Your task to perform on an android device: Go to Yahoo.com Image 0: 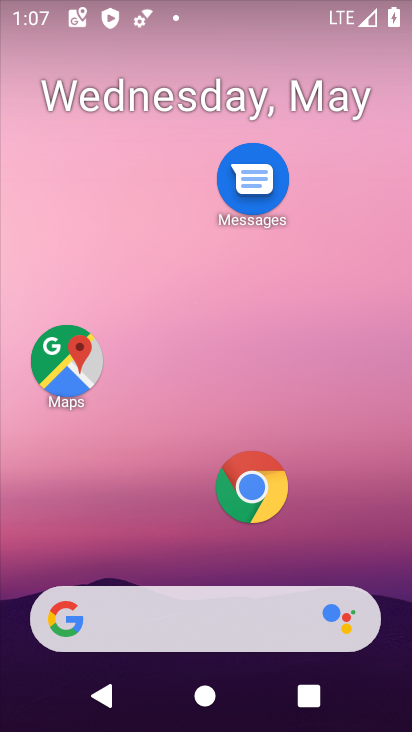
Step 0: click (248, 498)
Your task to perform on an android device: Go to Yahoo.com Image 1: 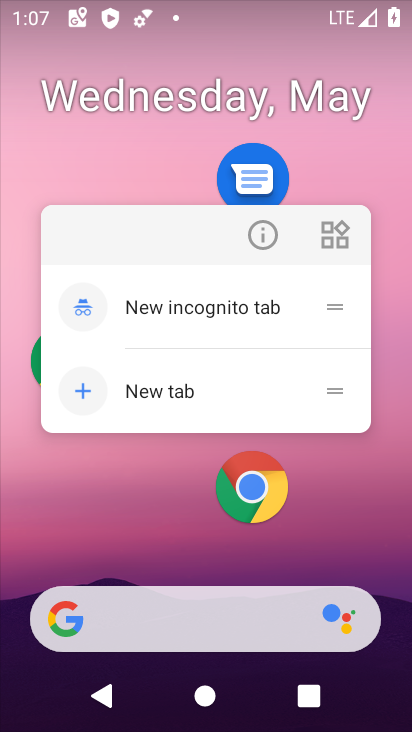
Step 1: click (262, 501)
Your task to perform on an android device: Go to Yahoo.com Image 2: 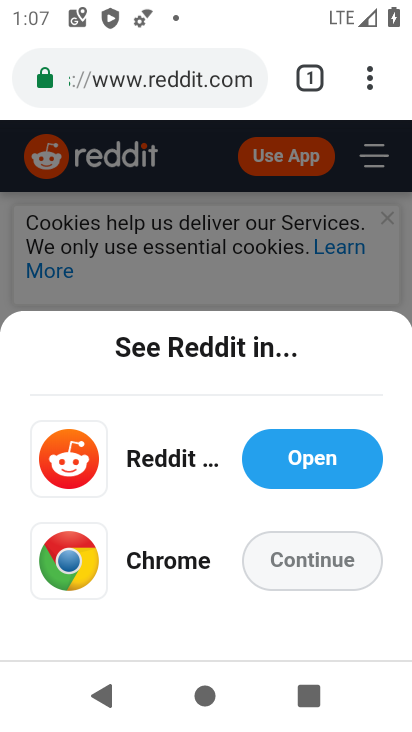
Step 2: click (187, 93)
Your task to perform on an android device: Go to Yahoo.com Image 3: 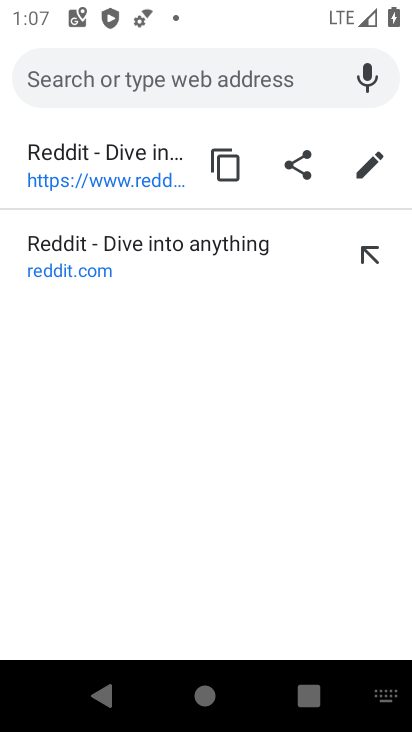
Step 3: type "yahoo.com"
Your task to perform on an android device: Go to Yahoo.com Image 4: 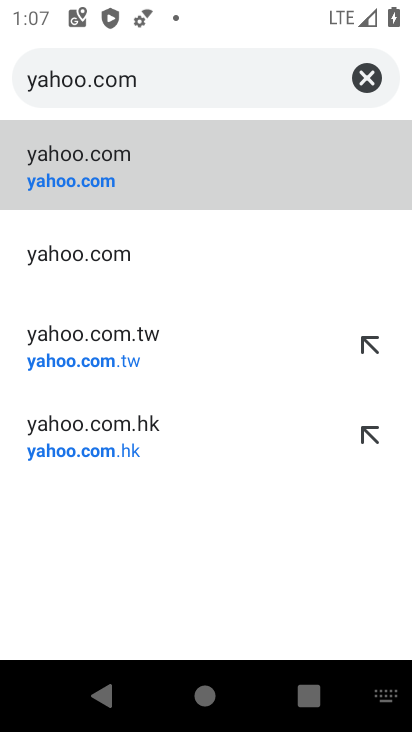
Step 4: click (150, 197)
Your task to perform on an android device: Go to Yahoo.com Image 5: 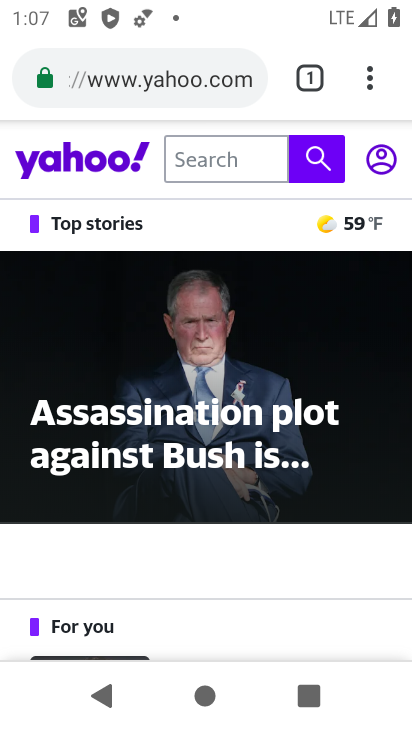
Step 5: task complete